Your task to perform on an android device: Show me popular games on the Play Store Image 0: 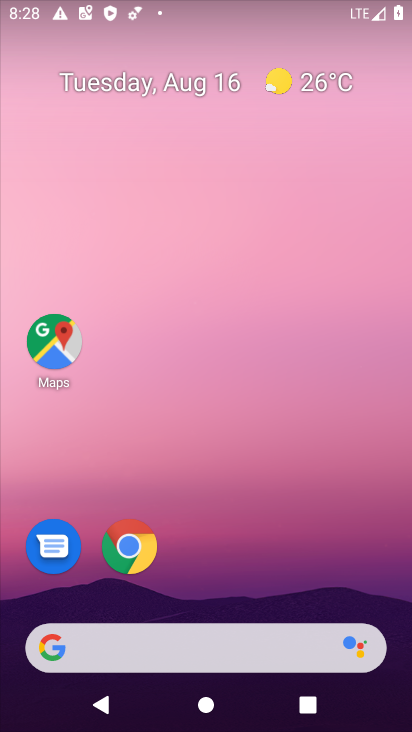
Step 0: drag from (241, 529) to (304, 12)
Your task to perform on an android device: Show me popular games on the Play Store Image 1: 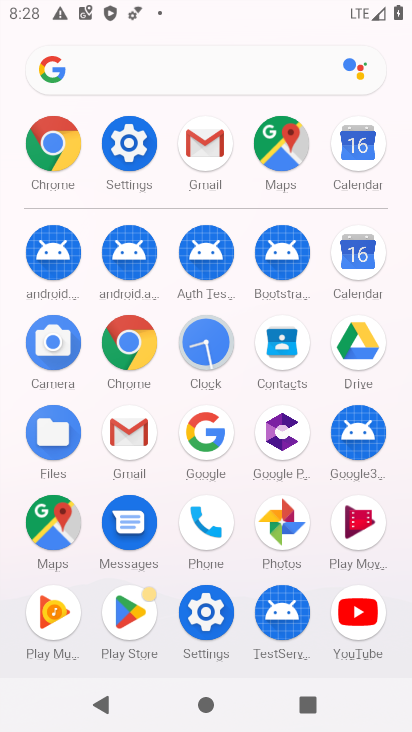
Step 1: click (130, 609)
Your task to perform on an android device: Show me popular games on the Play Store Image 2: 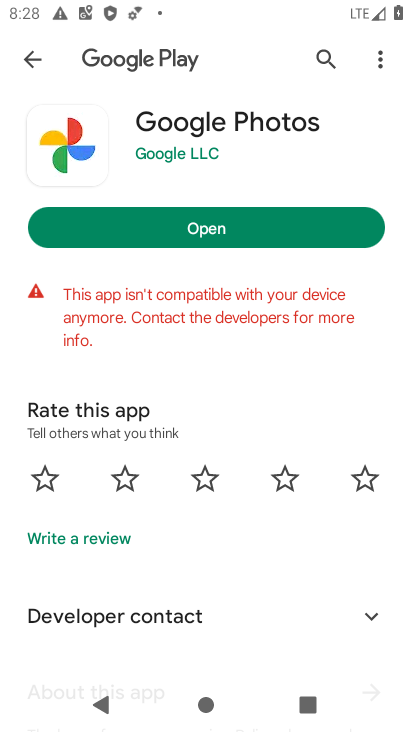
Step 2: click (36, 57)
Your task to perform on an android device: Show me popular games on the Play Store Image 3: 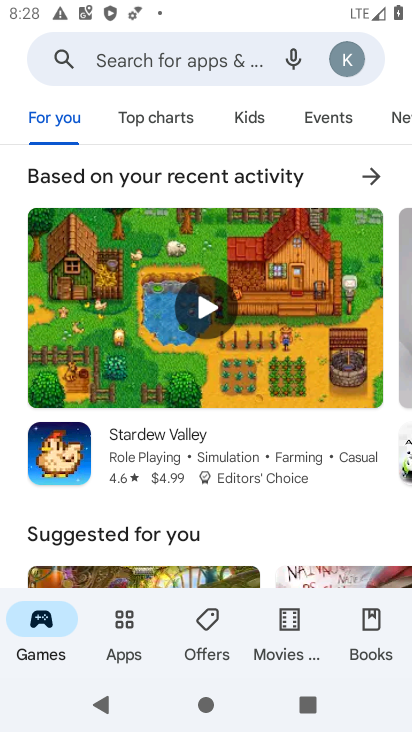
Step 3: drag from (288, 493) to (288, 457)
Your task to perform on an android device: Show me popular games on the Play Store Image 4: 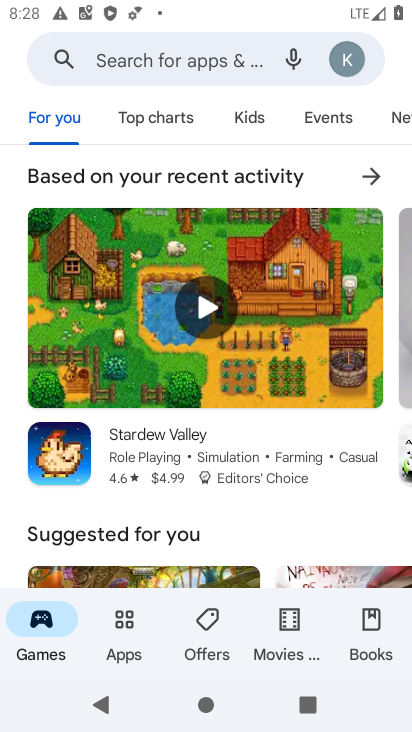
Step 4: drag from (301, 403) to (273, 0)
Your task to perform on an android device: Show me popular games on the Play Store Image 5: 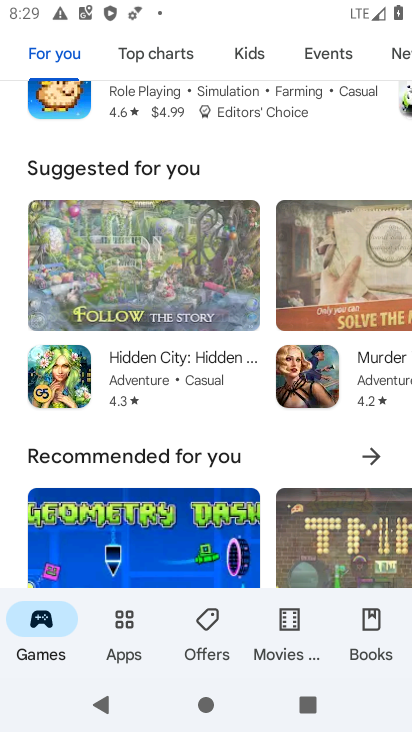
Step 5: drag from (211, 390) to (219, 19)
Your task to perform on an android device: Show me popular games on the Play Store Image 6: 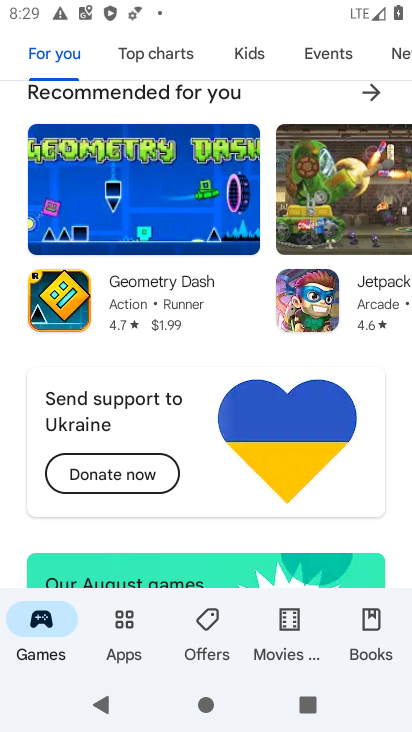
Step 6: drag from (198, 190) to (257, 519)
Your task to perform on an android device: Show me popular games on the Play Store Image 7: 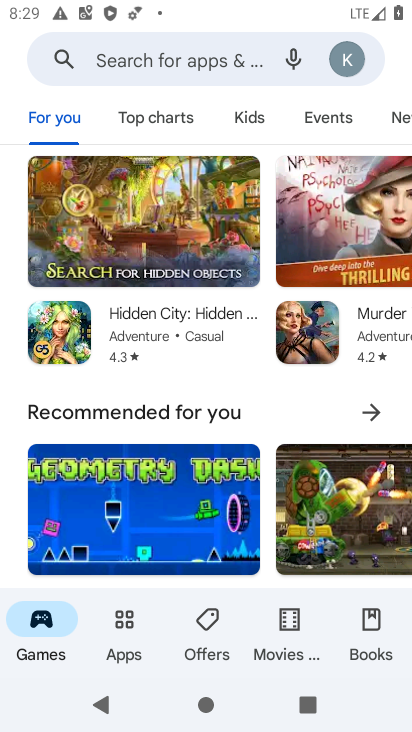
Step 7: drag from (211, 338) to (253, 567)
Your task to perform on an android device: Show me popular games on the Play Store Image 8: 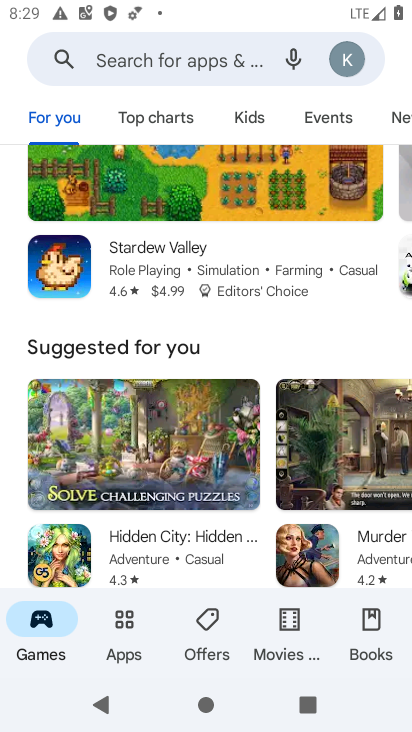
Step 8: drag from (232, 321) to (258, 589)
Your task to perform on an android device: Show me popular games on the Play Store Image 9: 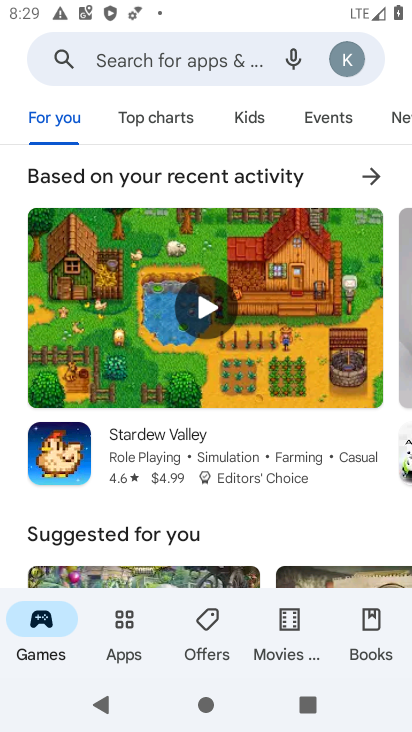
Step 9: drag from (242, 281) to (263, 427)
Your task to perform on an android device: Show me popular games on the Play Store Image 10: 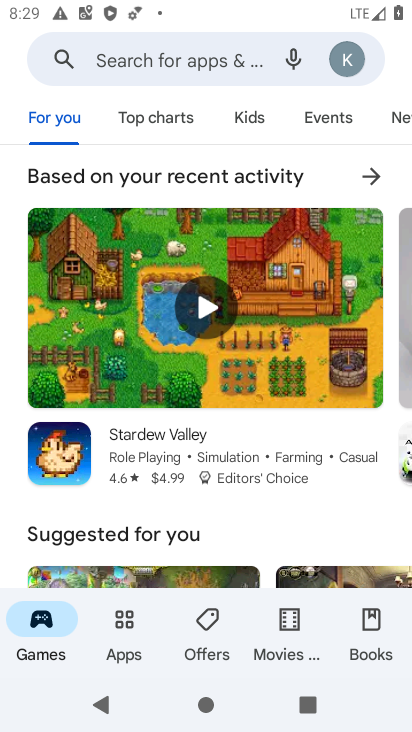
Step 10: click (210, 50)
Your task to perform on an android device: Show me popular games on the Play Store Image 11: 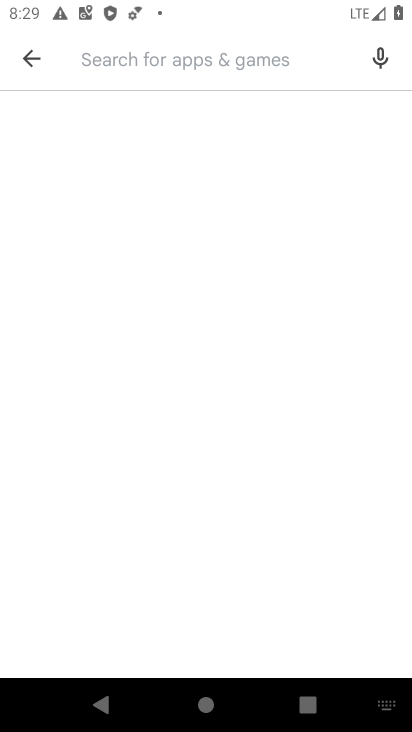
Step 11: type "popular games"
Your task to perform on an android device: Show me popular games on the Play Store Image 12: 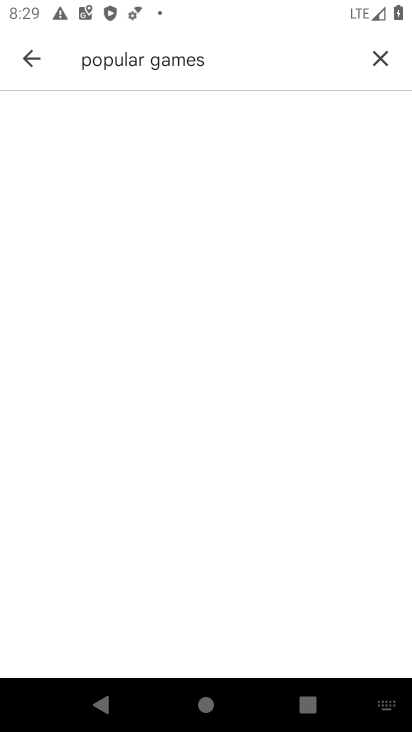
Step 12: click (32, 53)
Your task to perform on an android device: Show me popular games on the Play Store Image 13: 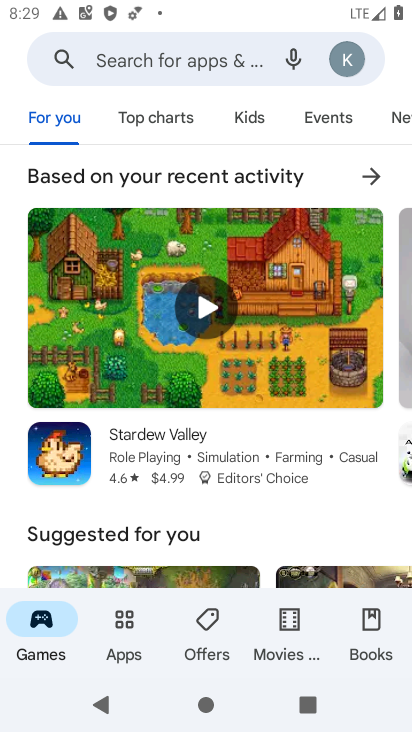
Step 13: click (146, 60)
Your task to perform on an android device: Show me popular games on the Play Store Image 14: 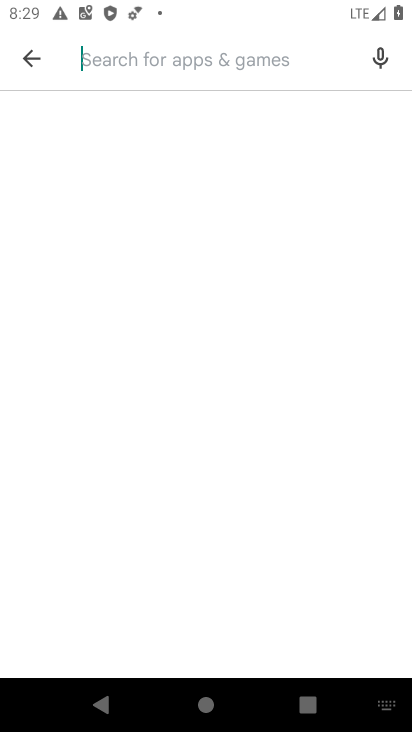
Step 14: click (30, 48)
Your task to perform on an android device: Show me popular games on the Play Store Image 15: 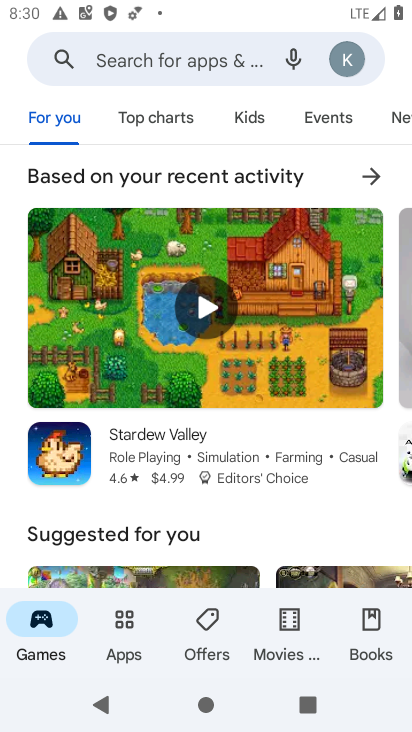
Step 15: click (262, 503)
Your task to perform on an android device: Show me popular games on the Play Store Image 16: 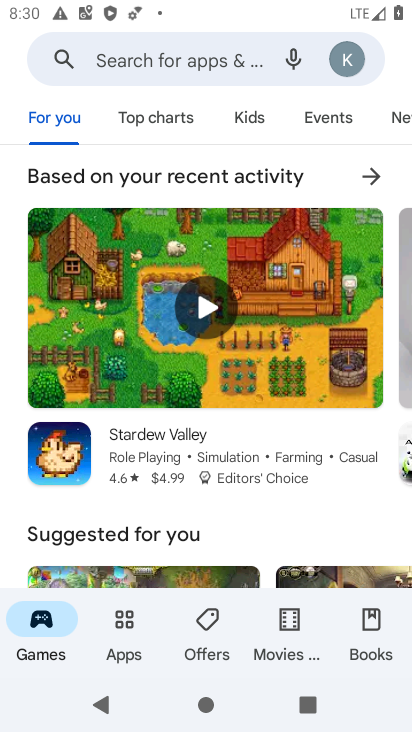
Step 16: task complete